Your task to perform on an android device: What's the news this evening? Image 0: 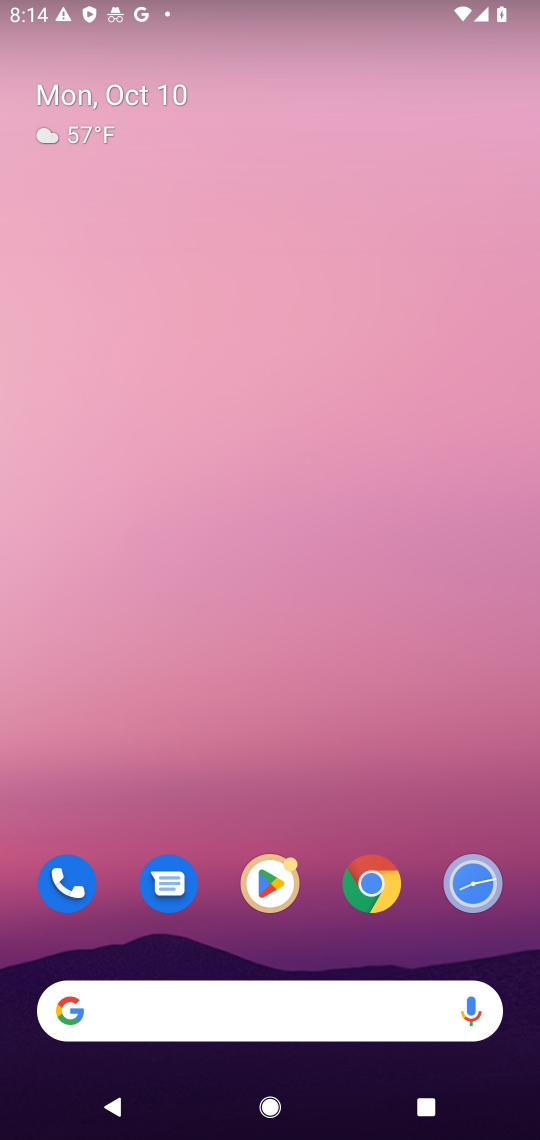
Step 0: drag from (281, 983) to (354, 540)
Your task to perform on an android device: What's the news this evening? Image 1: 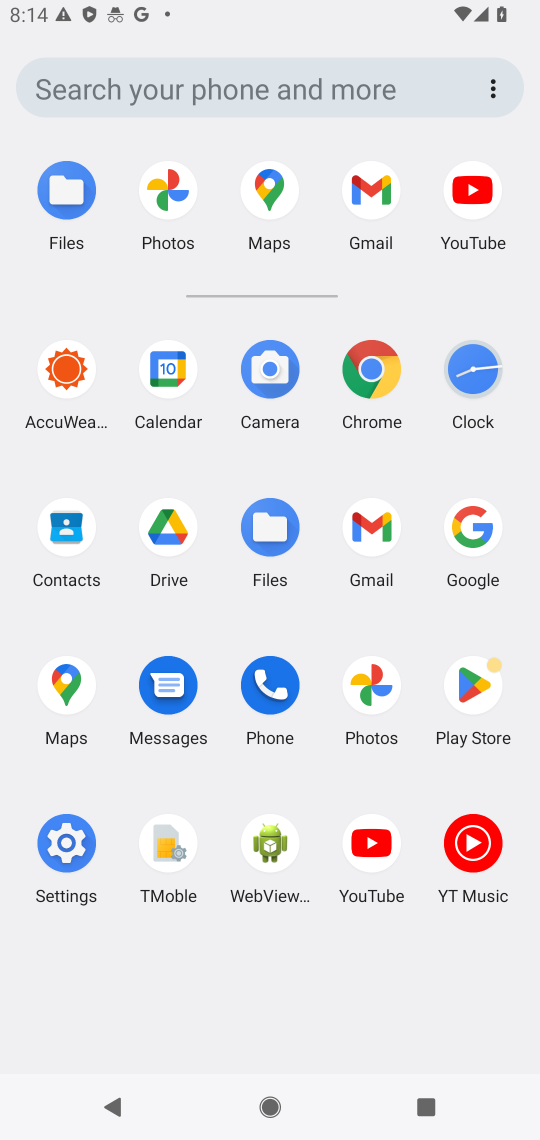
Step 1: click (460, 560)
Your task to perform on an android device: What's the news this evening? Image 2: 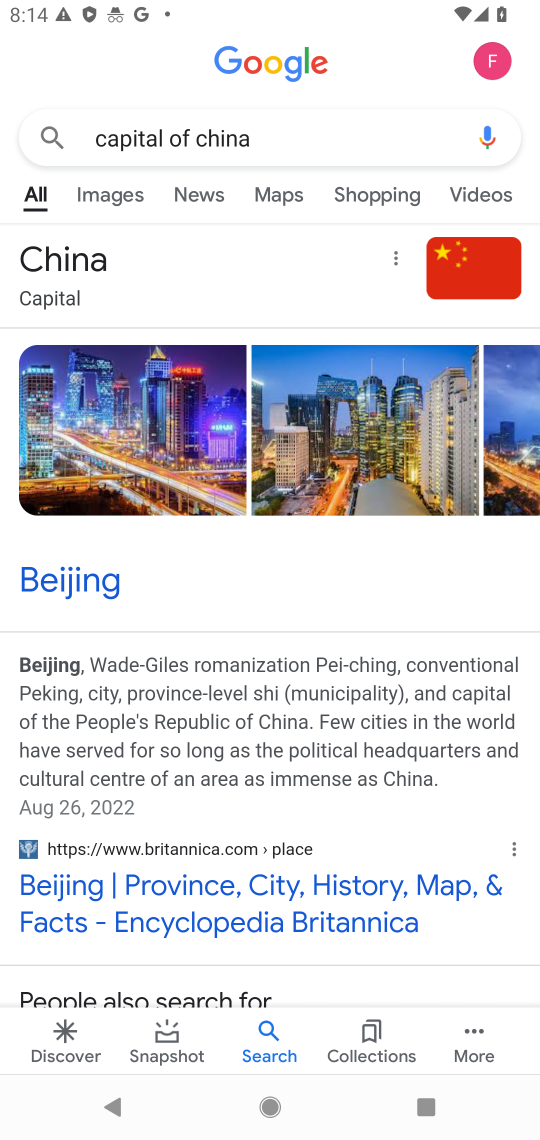
Step 2: click (379, 150)
Your task to perform on an android device: What's the news this evening? Image 3: 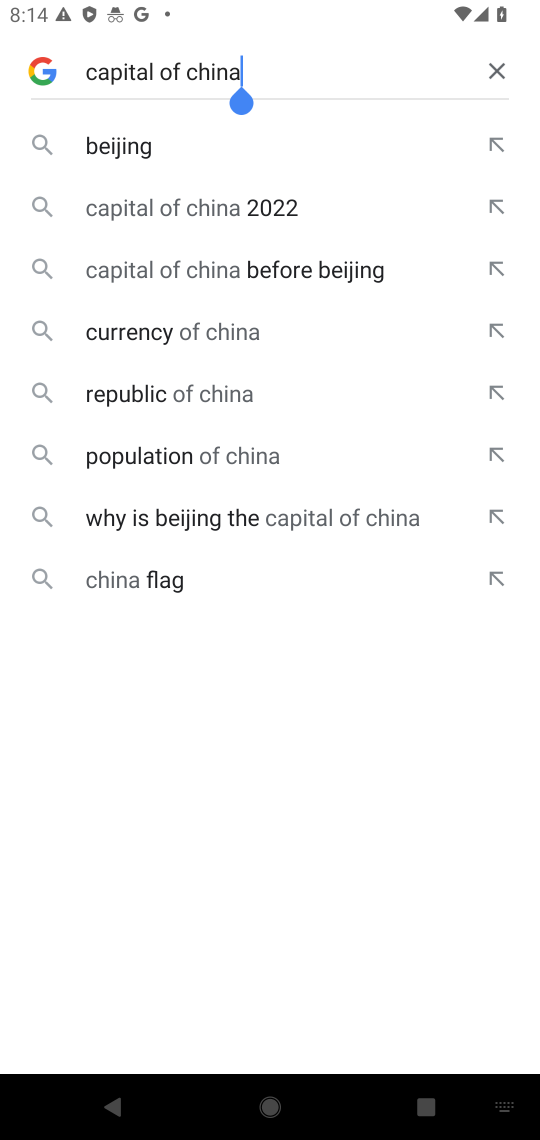
Step 3: click (481, 82)
Your task to perform on an android device: What's the news this evening? Image 4: 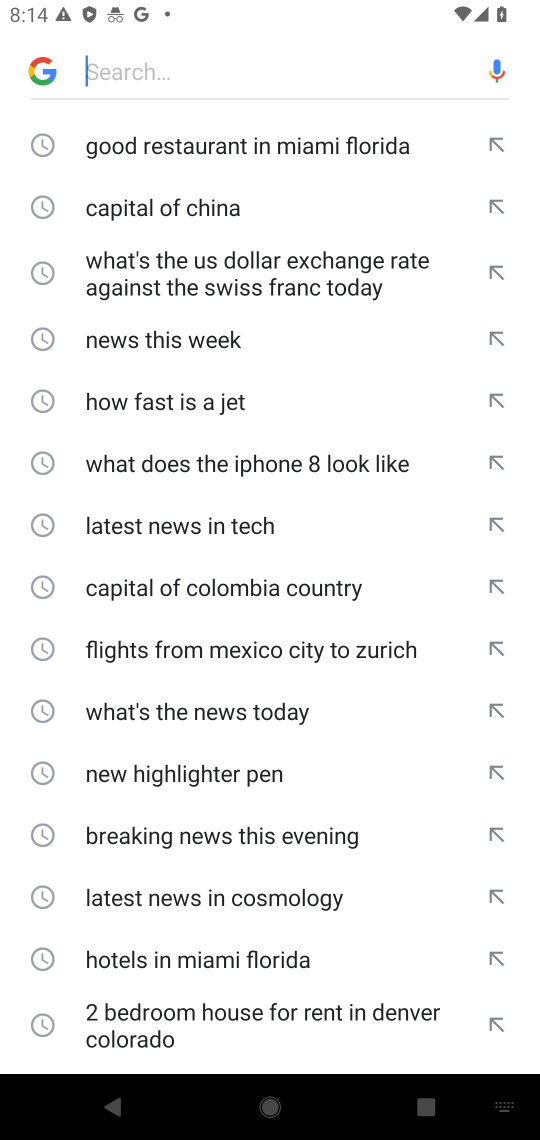
Step 4: type "news this evening"
Your task to perform on an android device: What's the news this evening? Image 5: 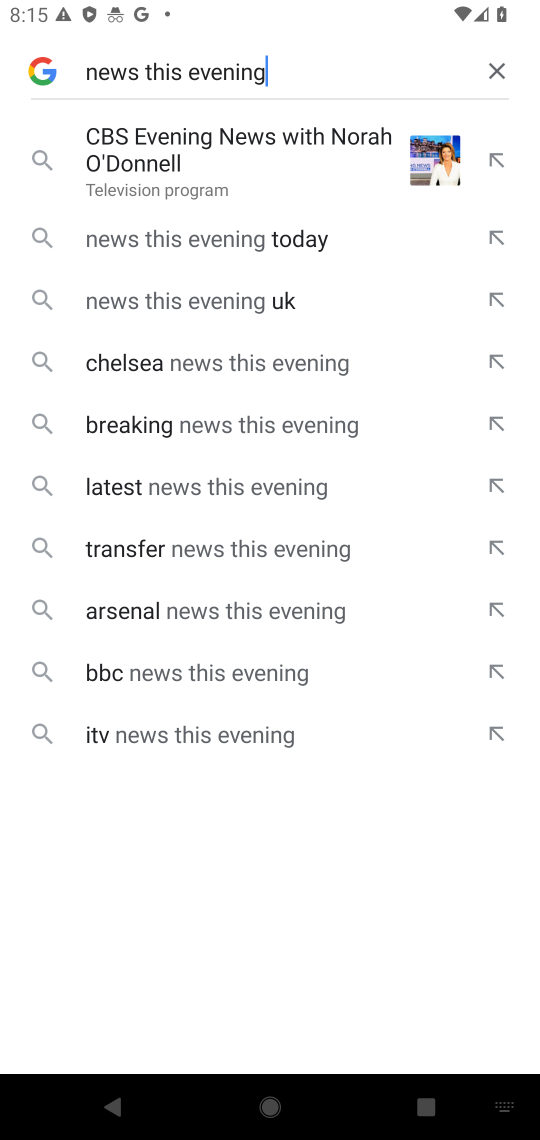
Step 5: click (319, 284)
Your task to perform on an android device: What's the news this evening? Image 6: 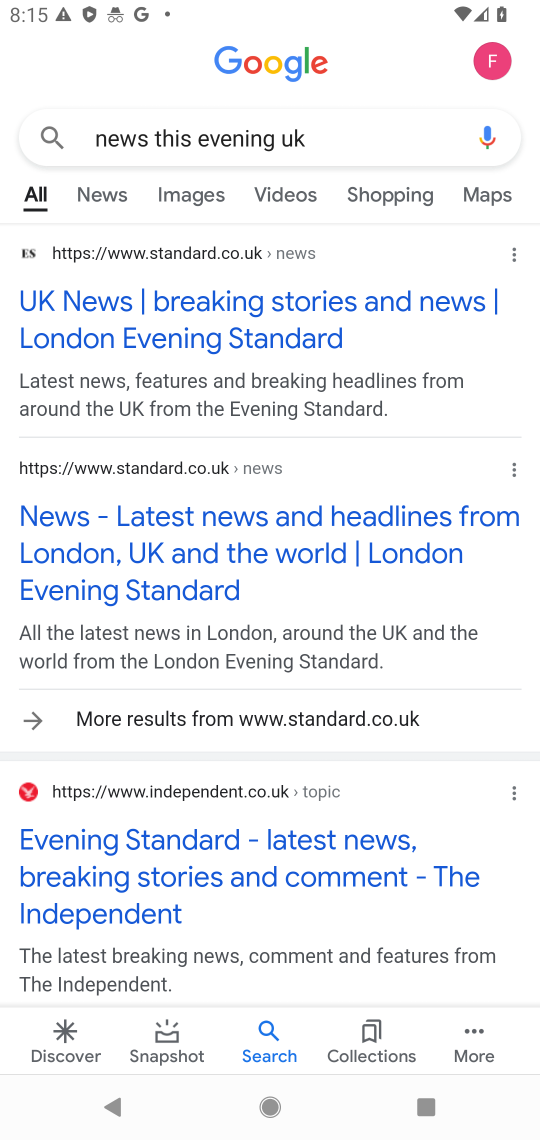
Step 6: task complete